Your task to perform on an android device: When is my next appointment? Image 0: 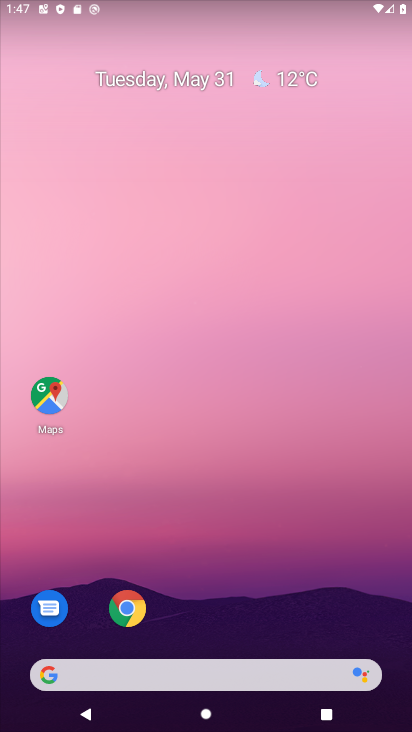
Step 0: drag from (153, 535) to (230, 184)
Your task to perform on an android device: When is my next appointment? Image 1: 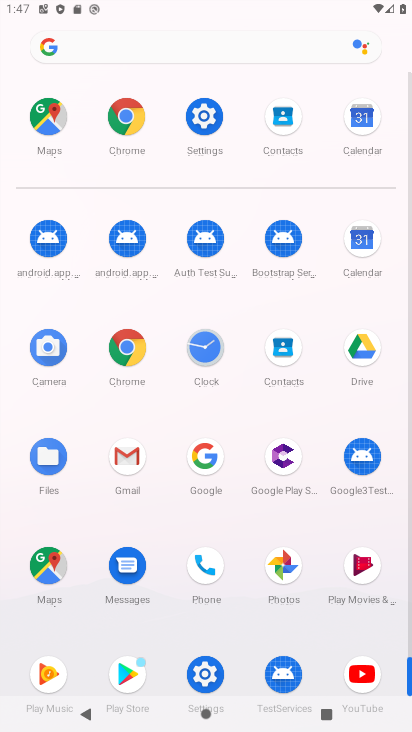
Step 1: click (363, 240)
Your task to perform on an android device: When is my next appointment? Image 2: 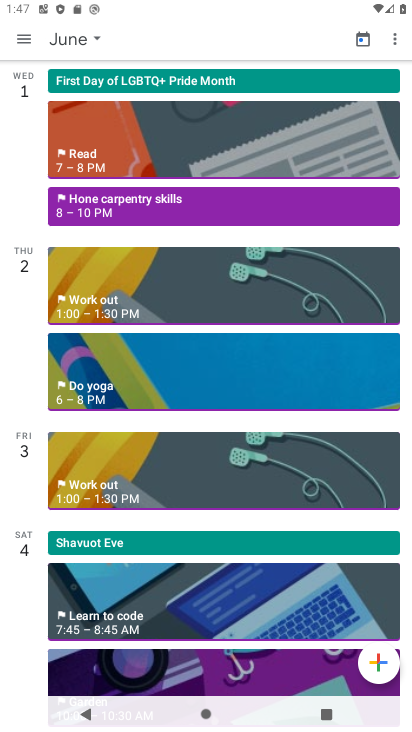
Step 2: drag from (172, 580) to (176, 181)
Your task to perform on an android device: When is my next appointment? Image 3: 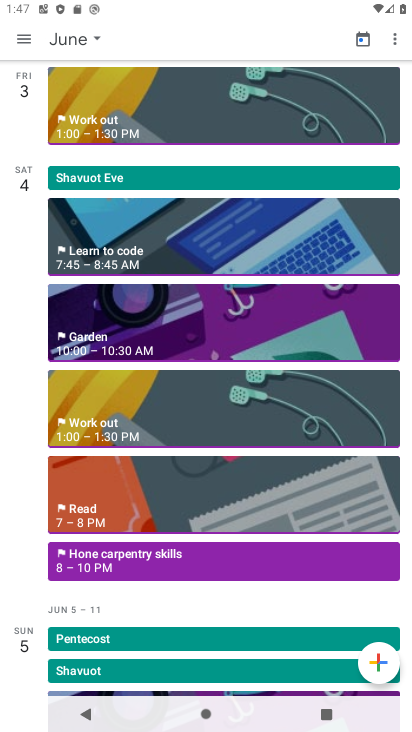
Step 3: drag from (156, 535) to (163, 302)
Your task to perform on an android device: When is my next appointment? Image 4: 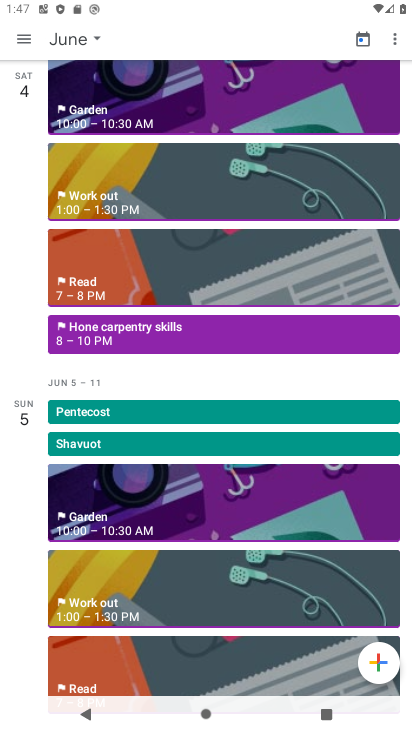
Step 4: drag from (158, 603) to (164, 407)
Your task to perform on an android device: When is my next appointment? Image 5: 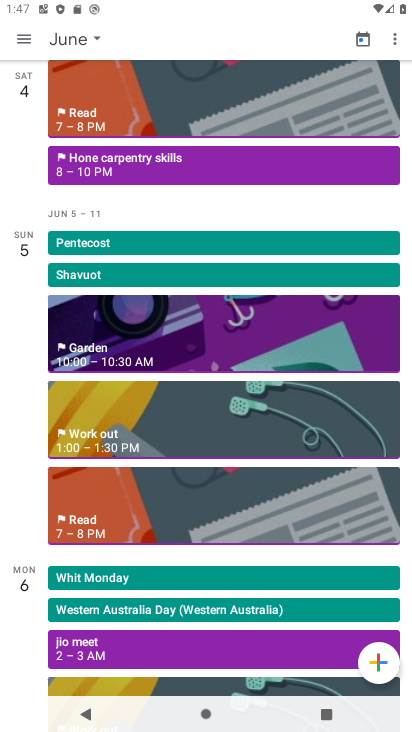
Step 5: drag from (208, 649) to (271, 312)
Your task to perform on an android device: When is my next appointment? Image 6: 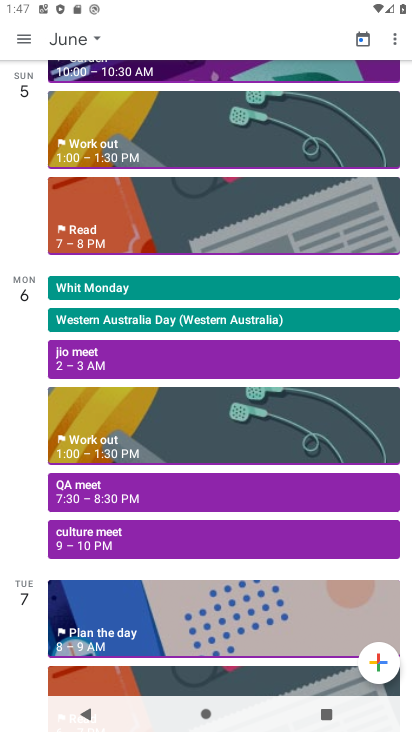
Step 6: click (137, 479)
Your task to perform on an android device: When is my next appointment? Image 7: 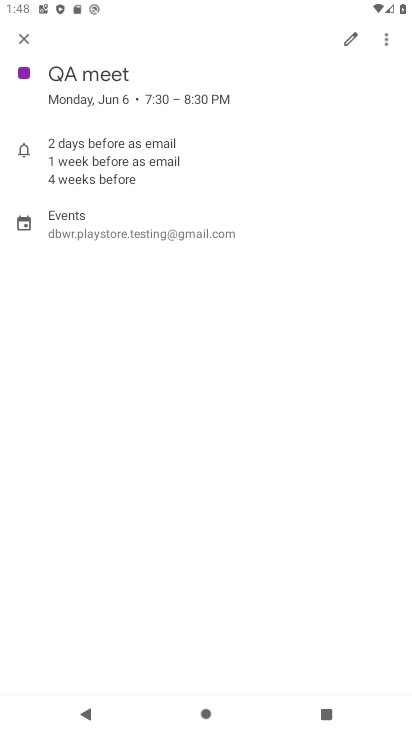
Step 7: task complete